Your task to perform on an android device: Open notification settings Image 0: 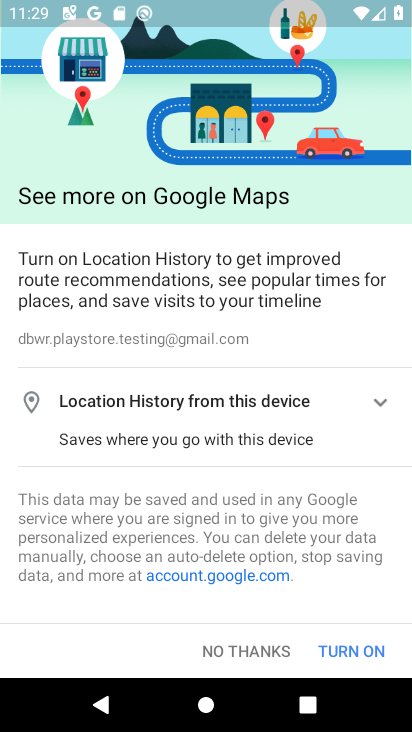
Step 0: press home button
Your task to perform on an android device: Open notification settings Image 1: 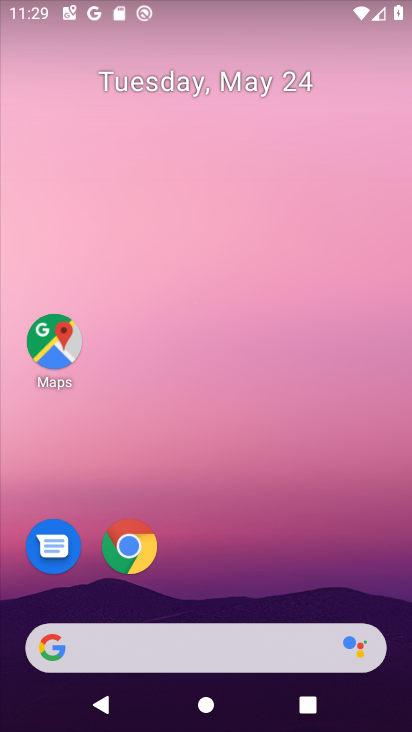
Step 1: drag from (229, 591) to (297, 2)
Your task to perform on an android device: Open notification settings Image 2: 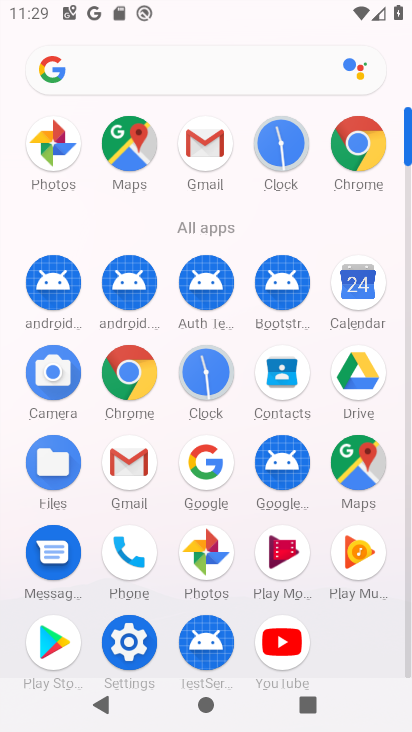
Step 2: click (127, 645)
Your task to perform on an android device: Open notification settings Image 3: 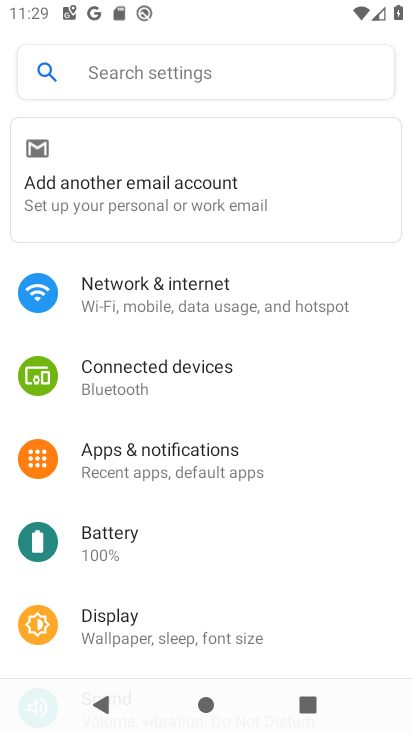
Step 3: click (147, 469)
Your task to perform on an android device: Open notification settings Image 4: 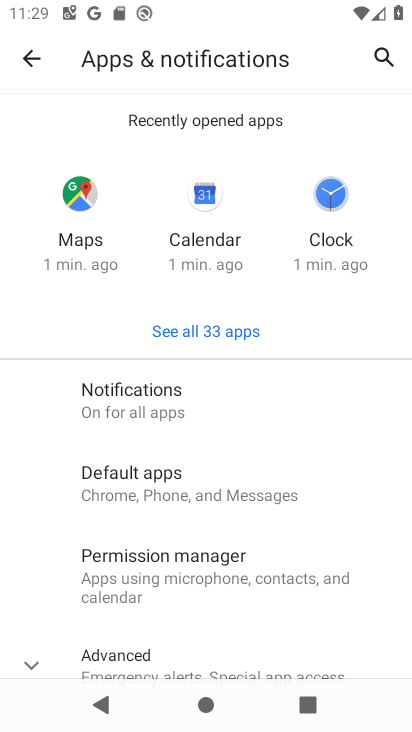
Step 4: click (137, 404)
Your task to perform on an android device: Open notification settings Image 5: 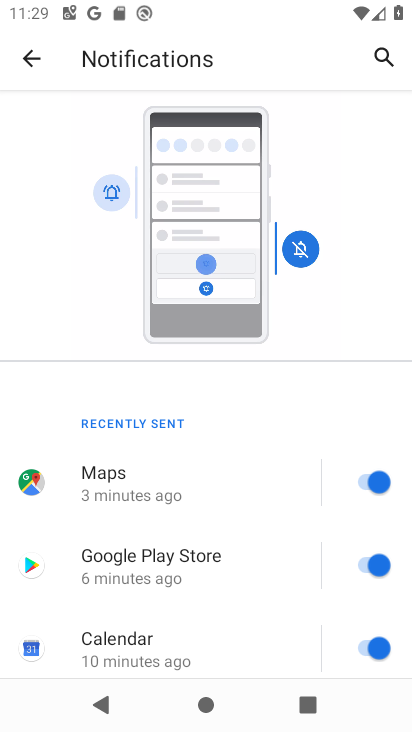
Step 5: task complete